Your task to perform on an android device: change the clock display to digital Image 0: 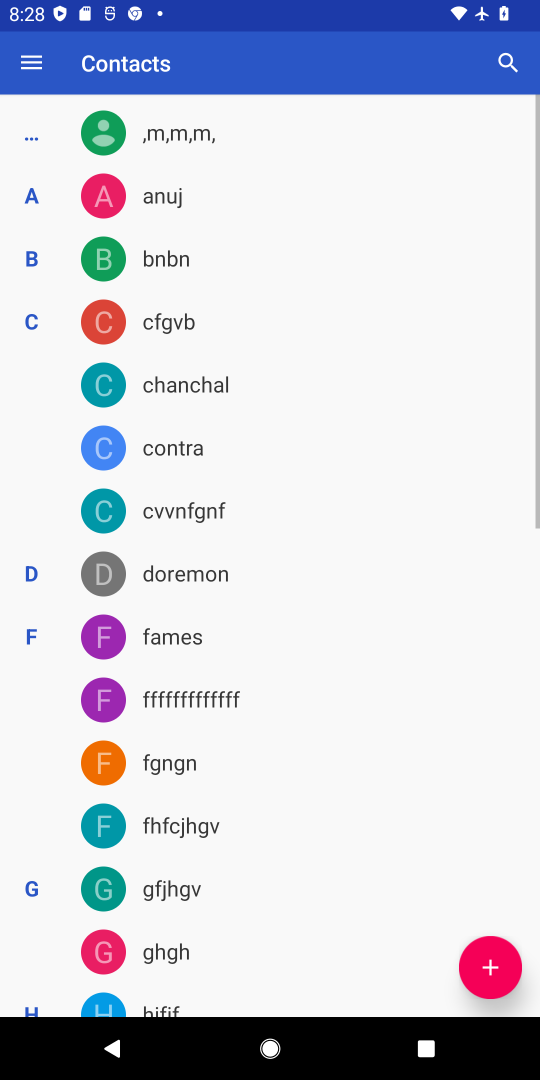
Step 0: press home button
Your task to perform on an android device: change the clock display to digital Image 1: 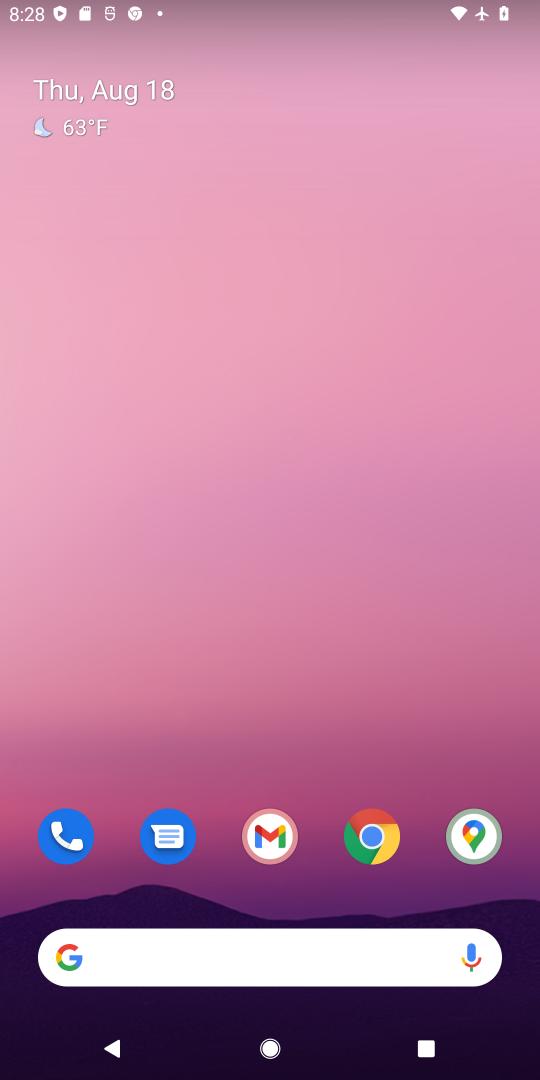
Step 1: drag from (426, 812) to (417, 27)
Your task to perform on an android device: change the clock display to digital Image 2: 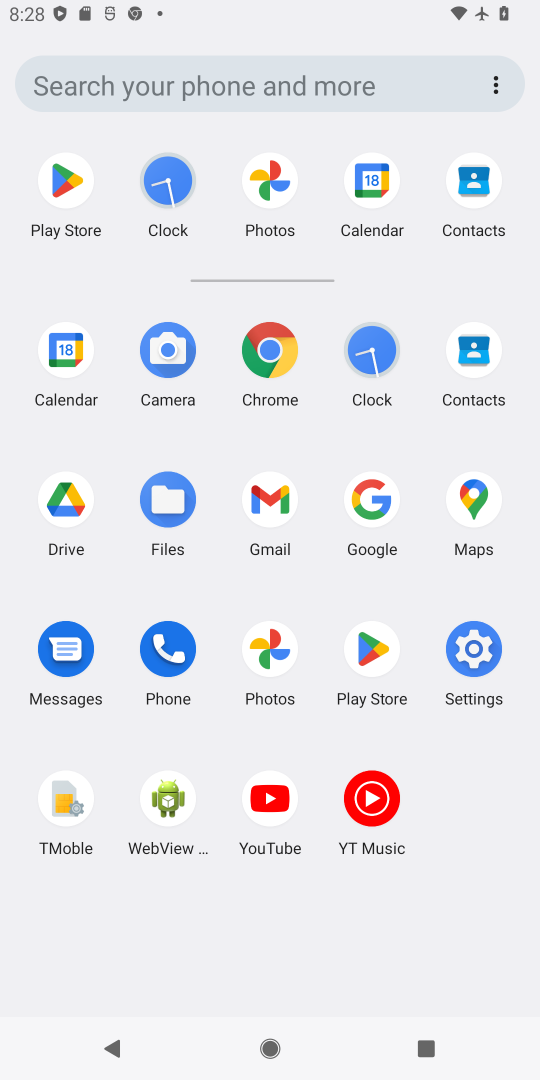
Step 2: click (363, 364)
Your task to perform on an android device: change the clock display to digital Image 3: 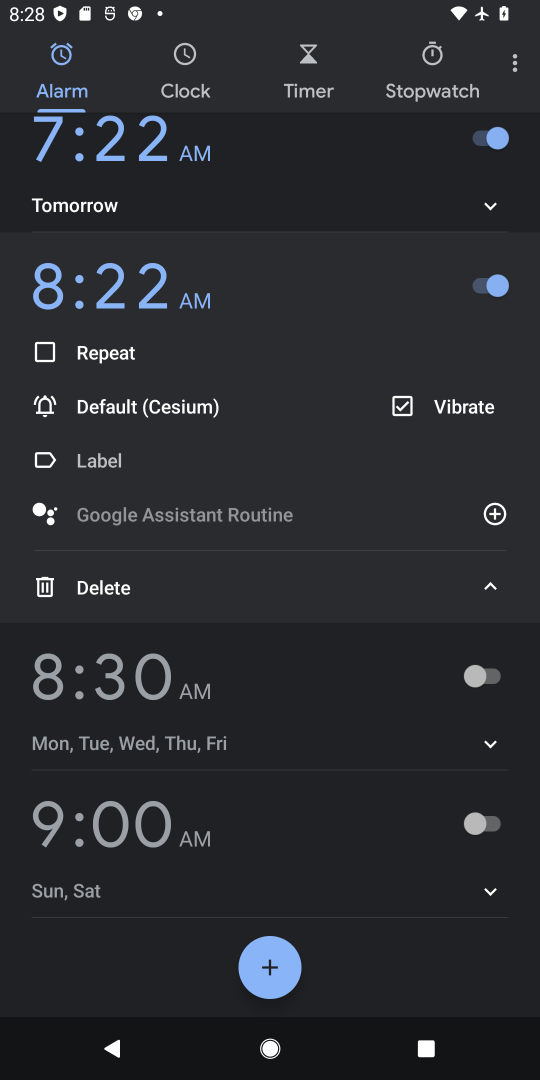
Step 3: click (509, 75)
Your task to perform on an android device: change the clock display to digital Image 4: 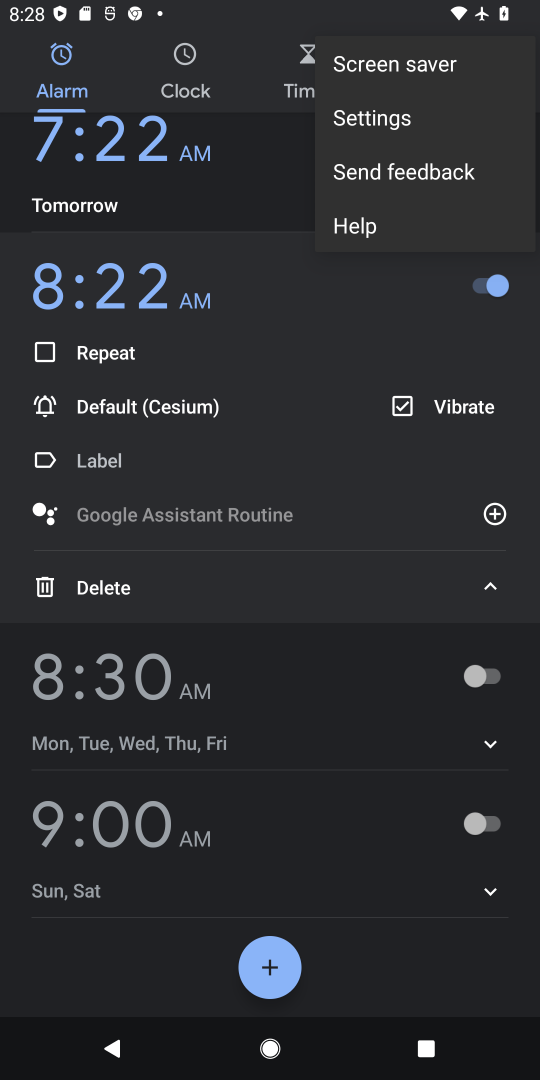
Step 4: click (359, 127)
Your task to perform on an android device: change the clock display to digital Image 5: 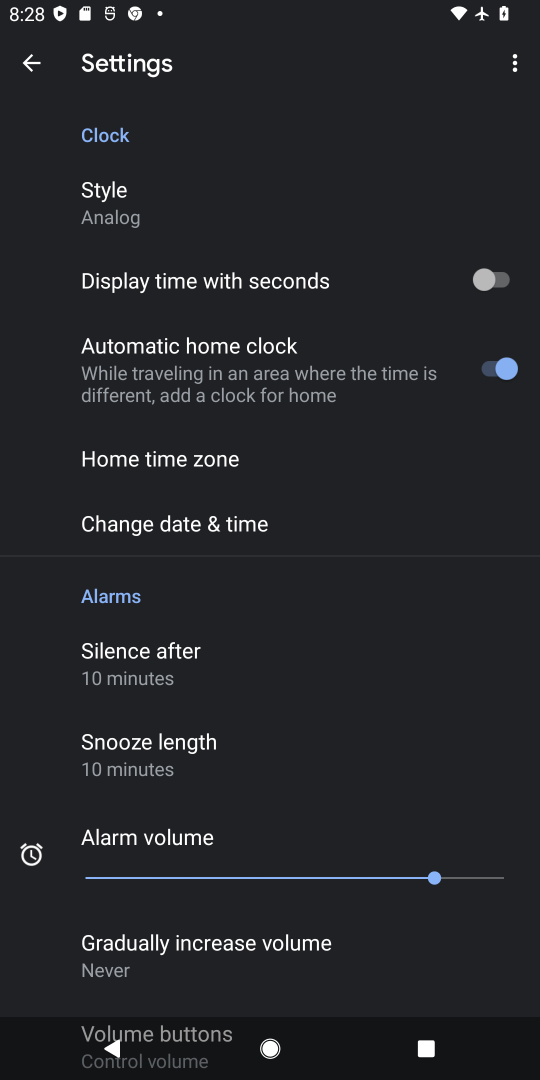
Step 5: click (147, 200)
Your task to perform on an android device: change the clock display to digital Image 6: 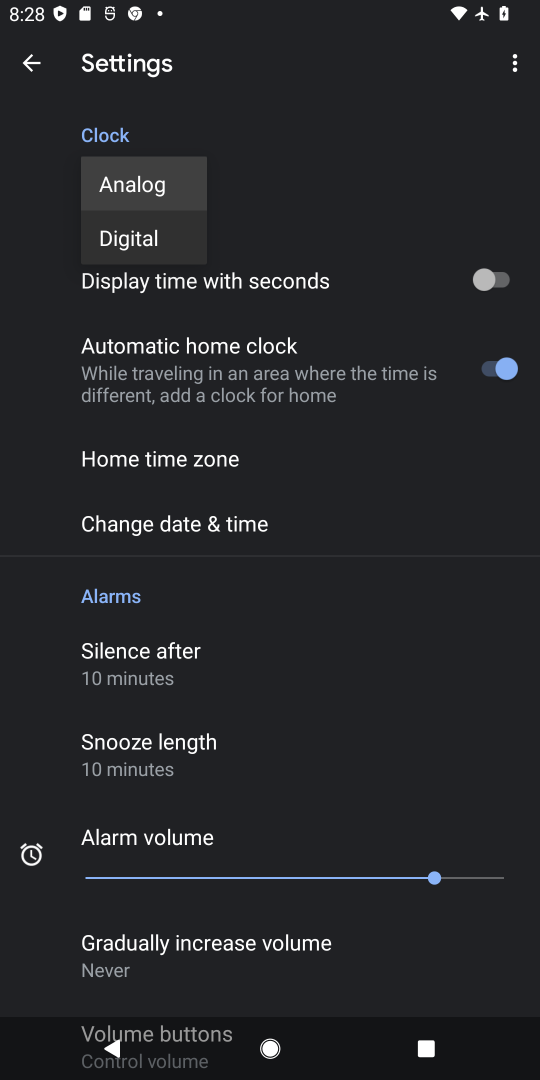
Step 6: click (148, 247)
Your task to perform on an android device: change the clock display to digital Image 7: 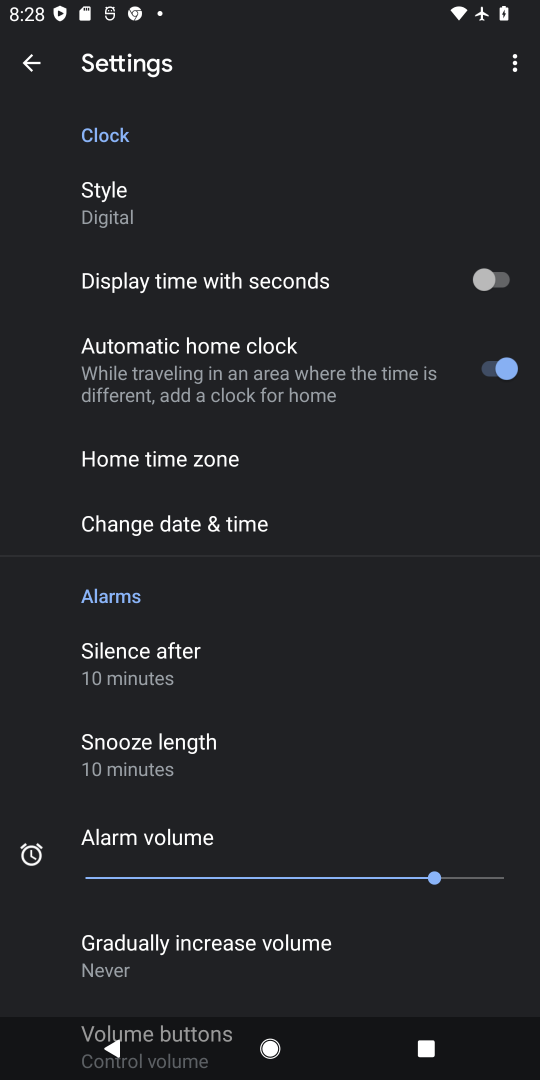
Step 7: task complete